Your task to perform on an android device: Check the news Image 0: 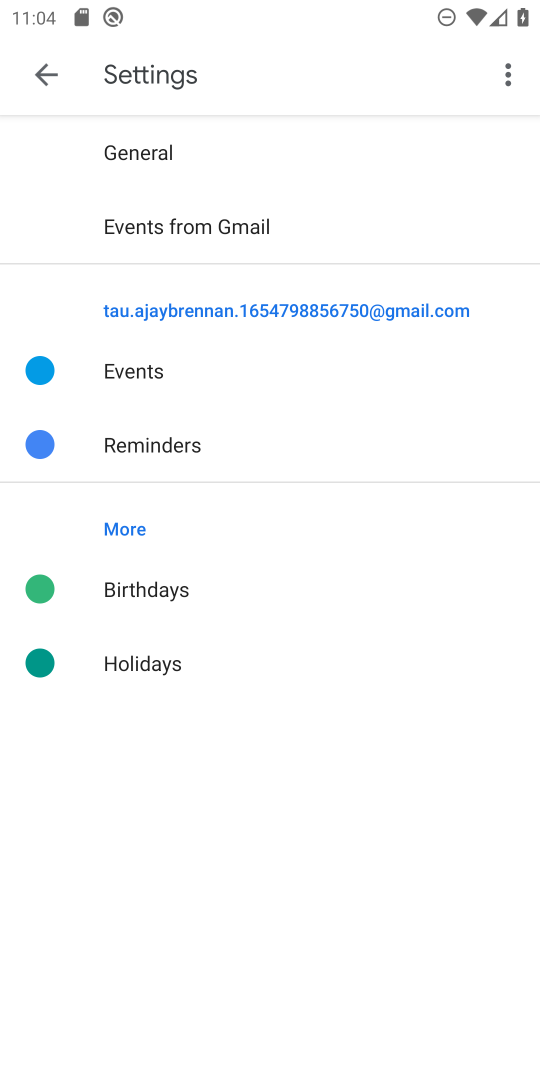
Step 0: press home button
Your task to perform on an android device: Check the news Image 1: 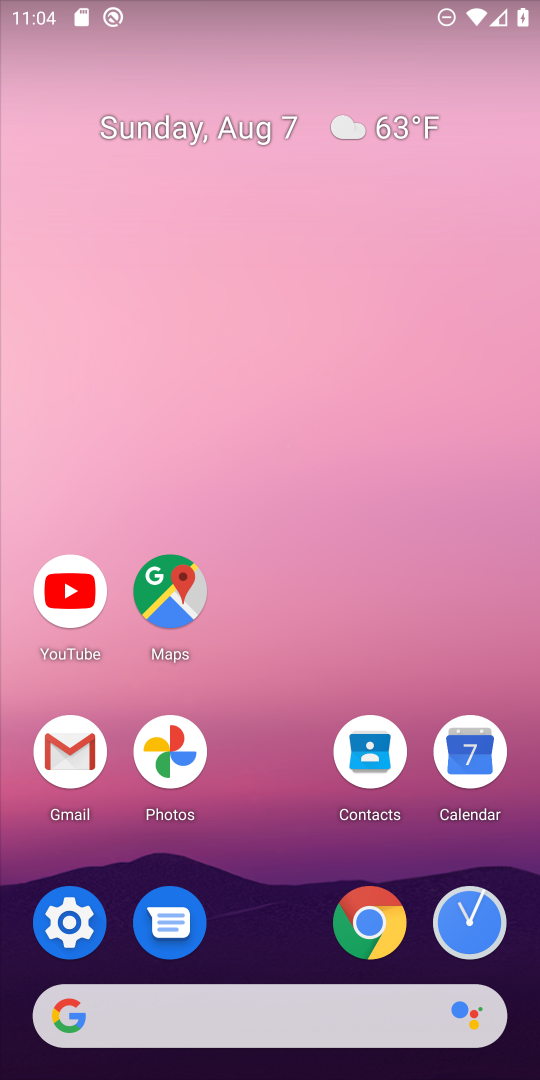
Step 1: click (268, 1018)
Your task to perform on an android device: Check the news Image 2: 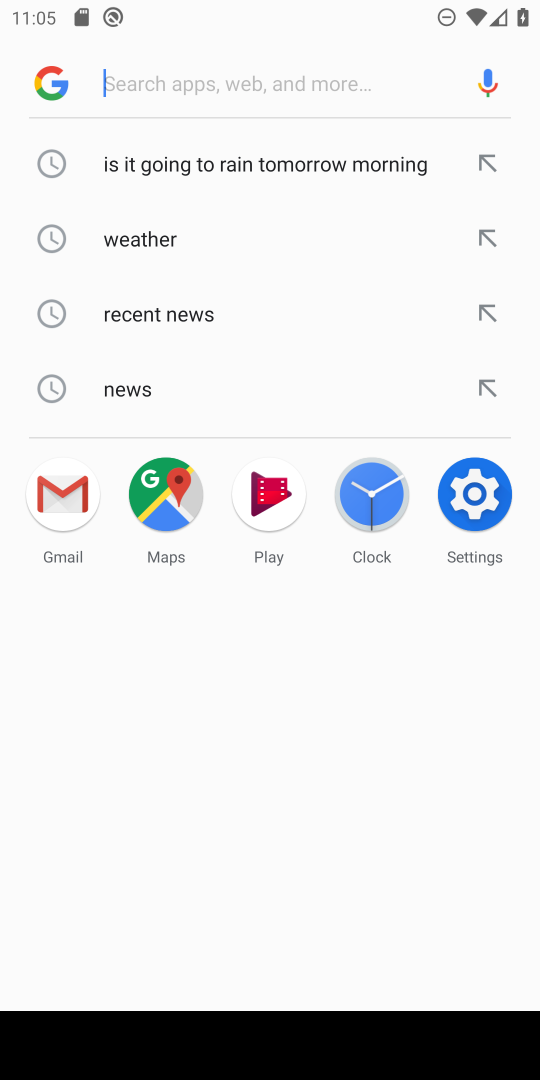
Step 2: click (119, 379)
Your task to perform on an android device: Check the news Image 3: 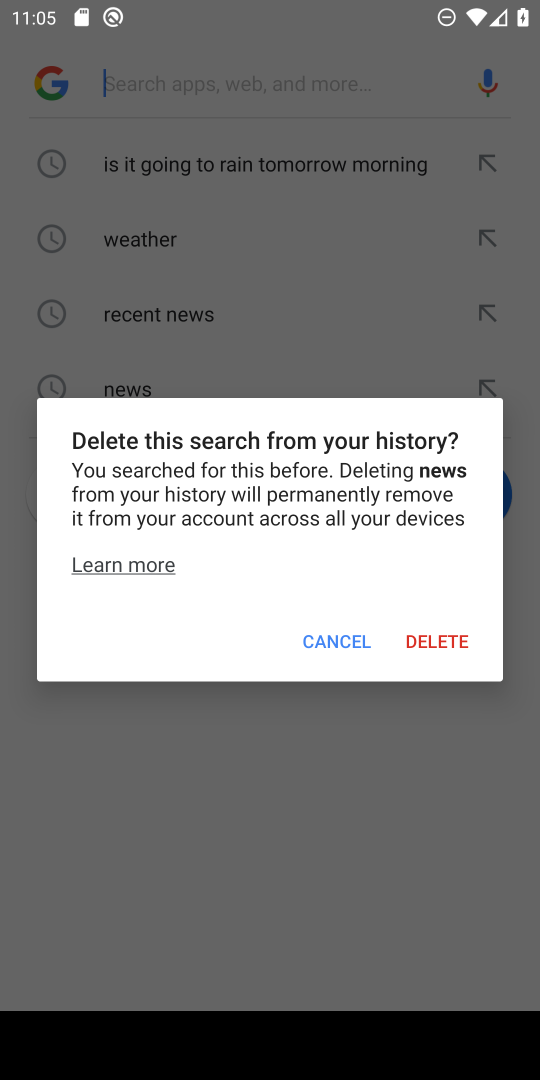
Step 3: click (345, 635)
Your task to perform on an android device: Check the news Image 4: 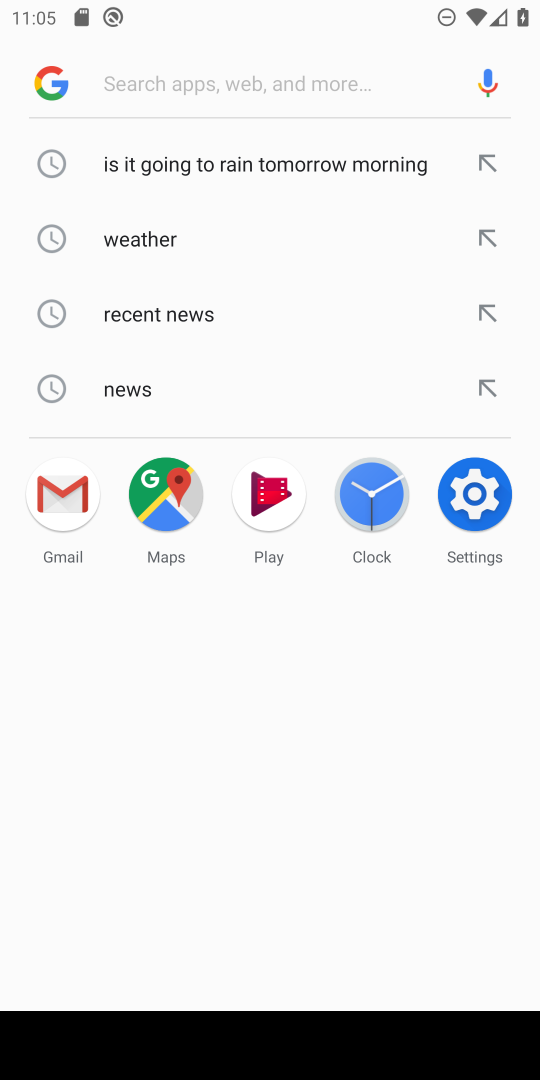
Step 4: click (137, 377)
Your task to perform on an android device: Check the news Image 5: 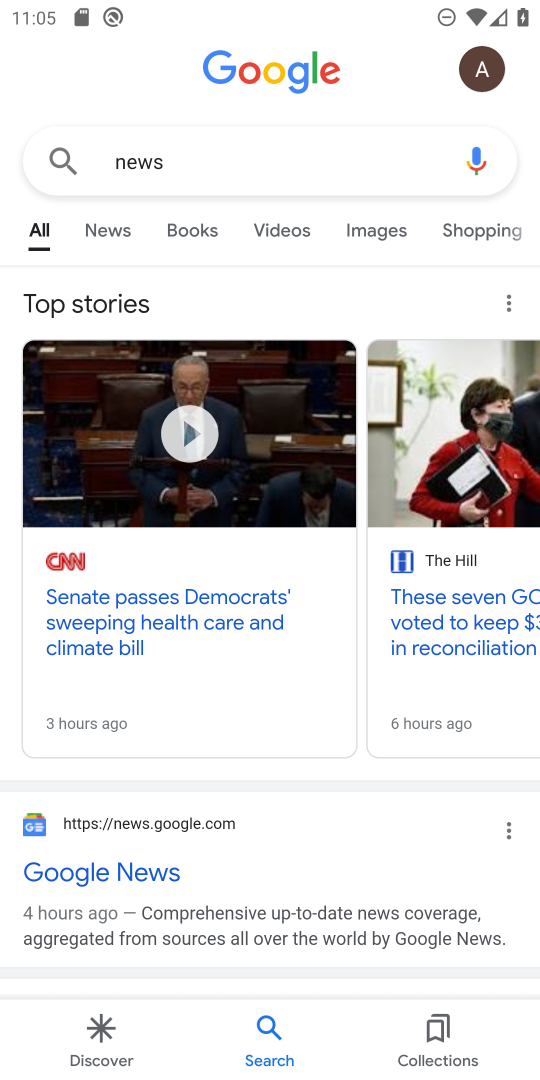
Step 5: click (138, 866)
Your task to perform on an android device: Check the news Image 6: 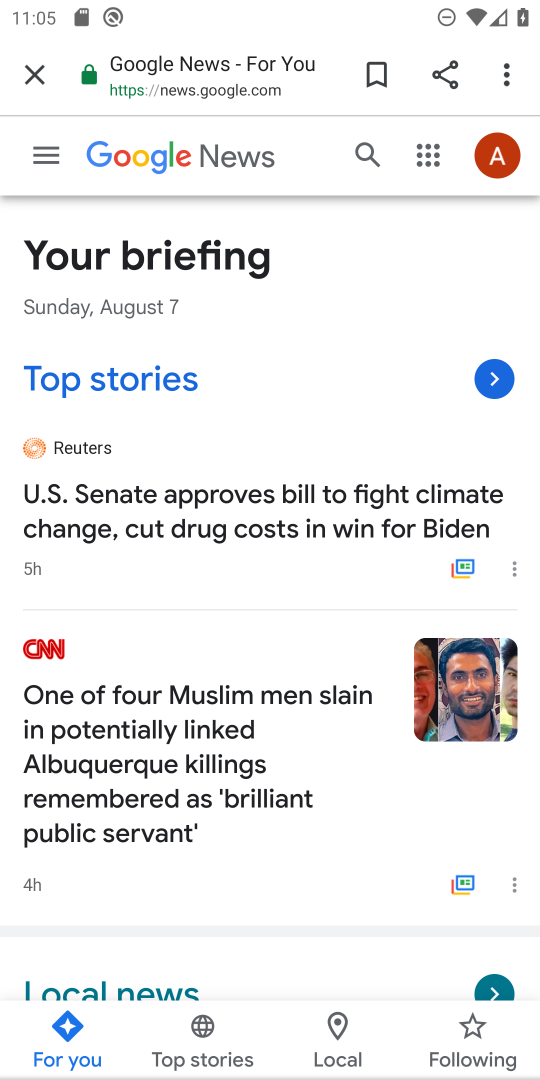
Step 6: task complete